Your task to perform on an android device: Open settings Image 0: 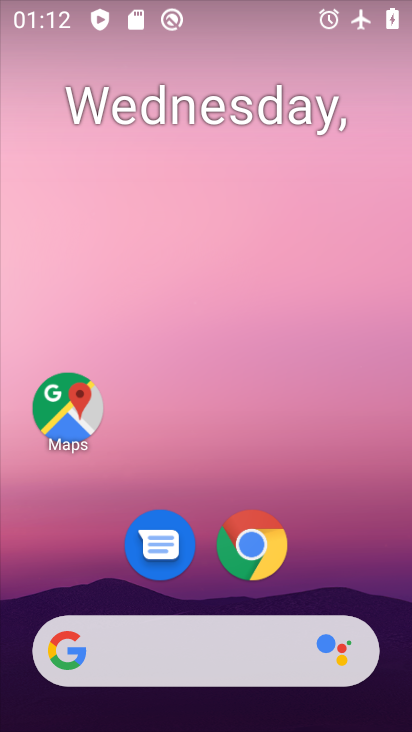
Step 0: drag from (360, 533) to (287, 101)
Your task to perform on an android device: Open settings Image 1: 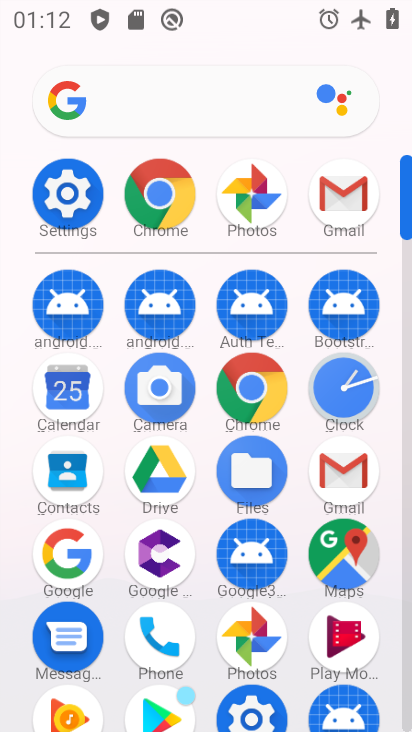
Step 1: click (69, 180)
Your task to perform on an android device: Open settings Image 2: 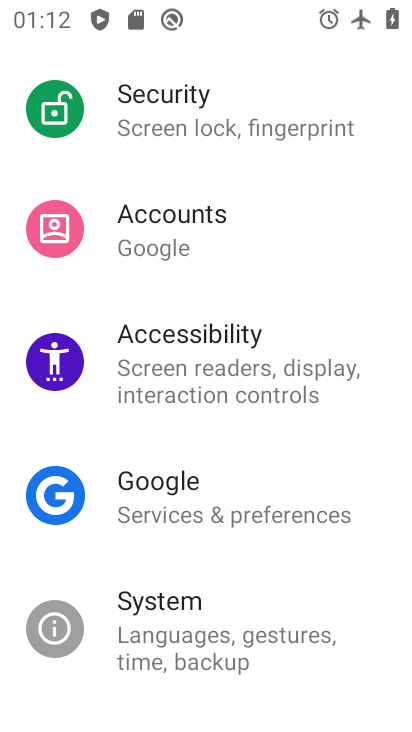
Step 2: task complete